Your task to perform on an android device: install app "Facebook Messenger" Image 0: 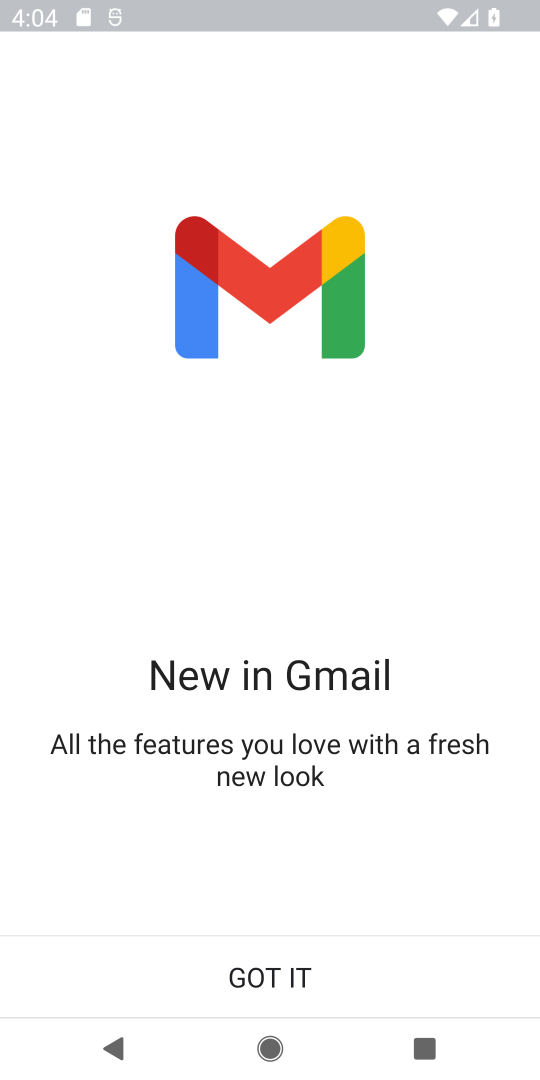
Step 0: press back button
Your task to perform on an android device: install app "Facebook Messenger" Image 1: 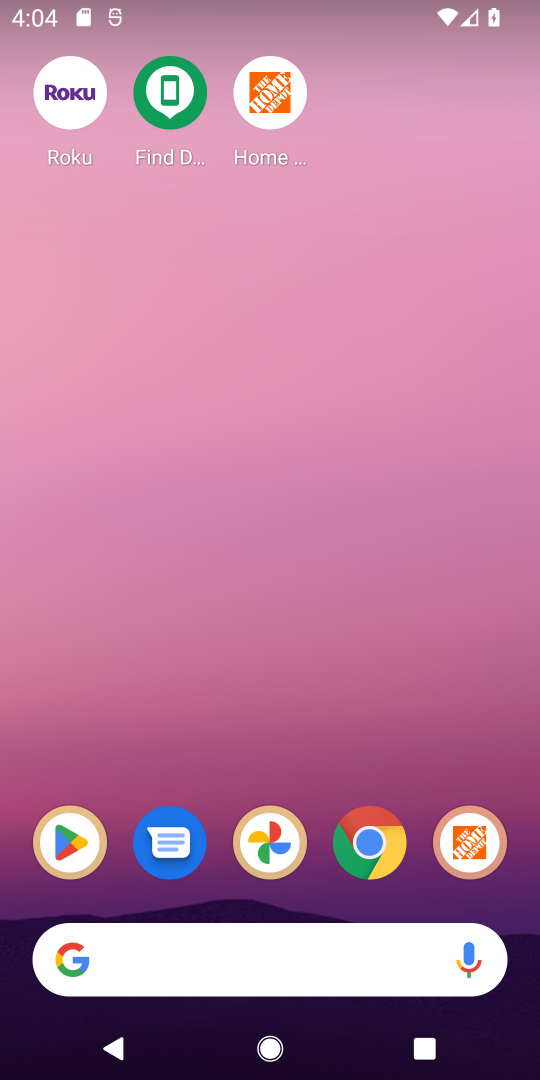
Step 1: drag from (239, 598) to (355, 31)
Your task to perform on an android device: install app "Facebook Messenger" Image 2: 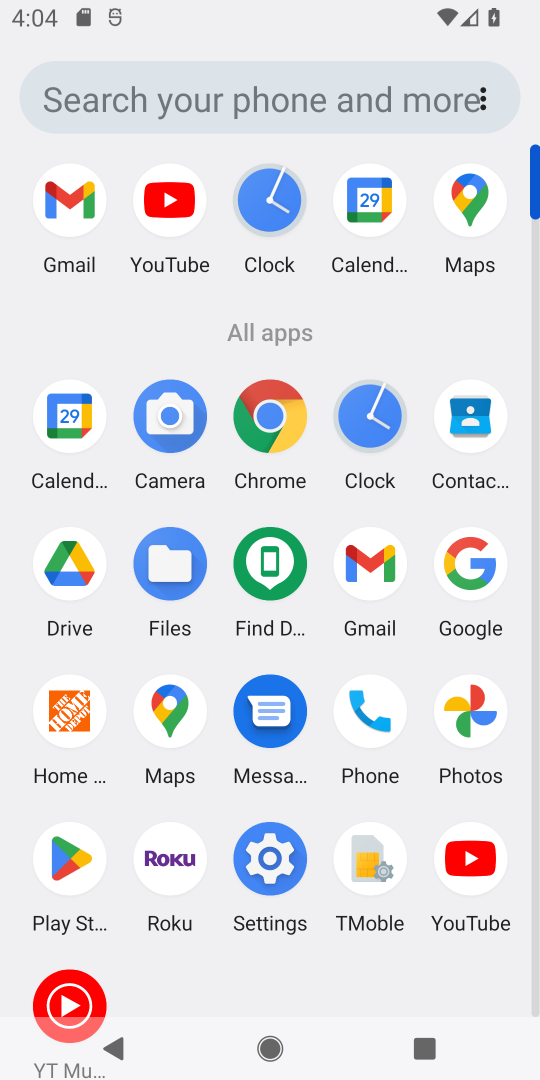
Step 2: click (56, 875)
Your task to perform on an android device: install app "Facebook Messenger" Image 3: 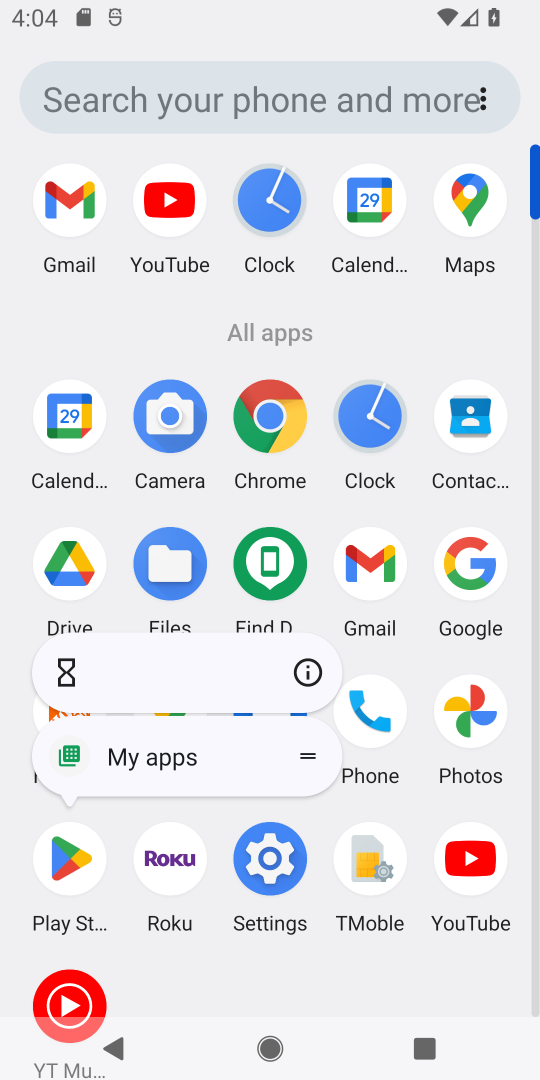
Step 3: click (67, 870)
Your task to perform on an android device: install app "Facebook Messenger" Image 4: 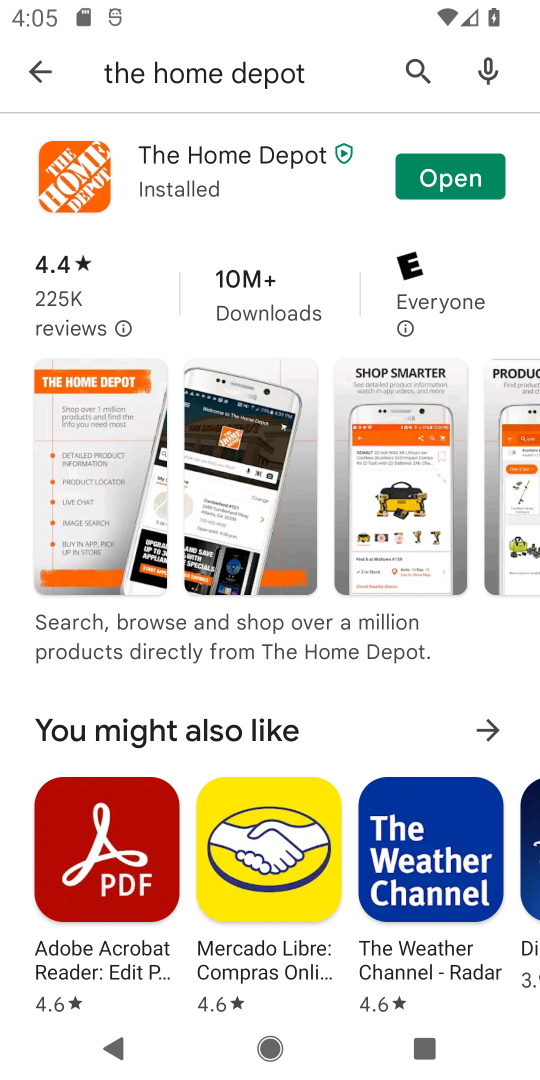
Step 4: click (425, 62)
Your task to perform on an android device: install app "Facebook Messenger" Image 5: 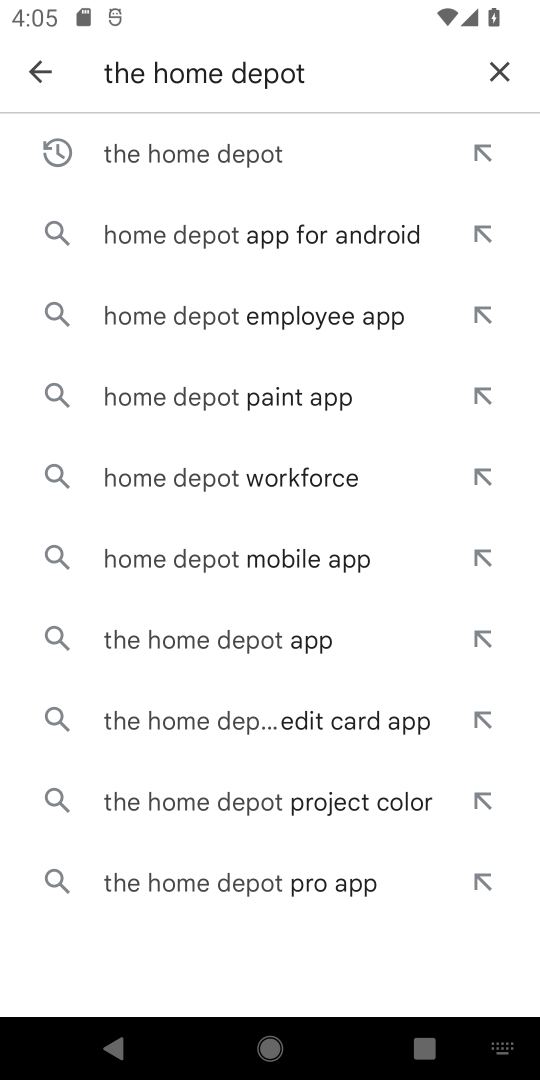
Step 5: click (486, 62)
Your task to perform on an android device: install app "Facebook Messenger" Image 6: 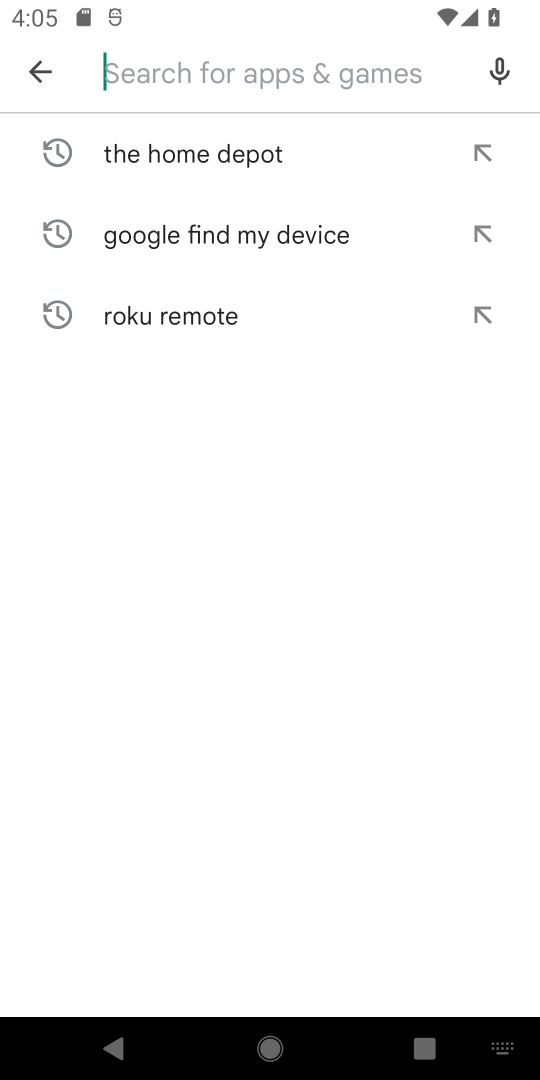
Step 6: click (227, 61)
Your task to perform on an android device: install app "Facebook Messenger" Image 7: 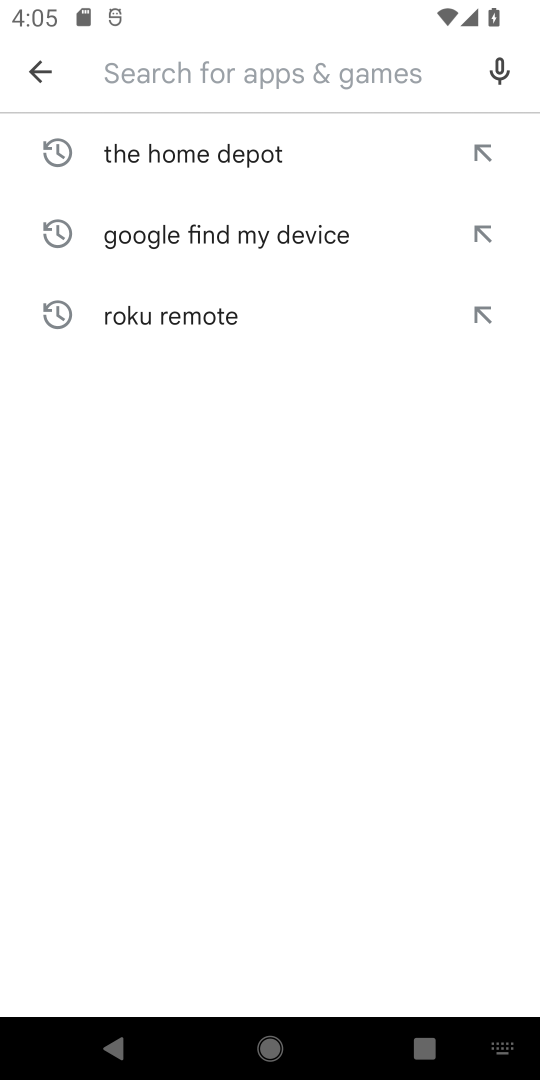
Step 7: type "facebook messenger"
Your task to perform on an android device: install app "Facebook Messenger" Image 8: 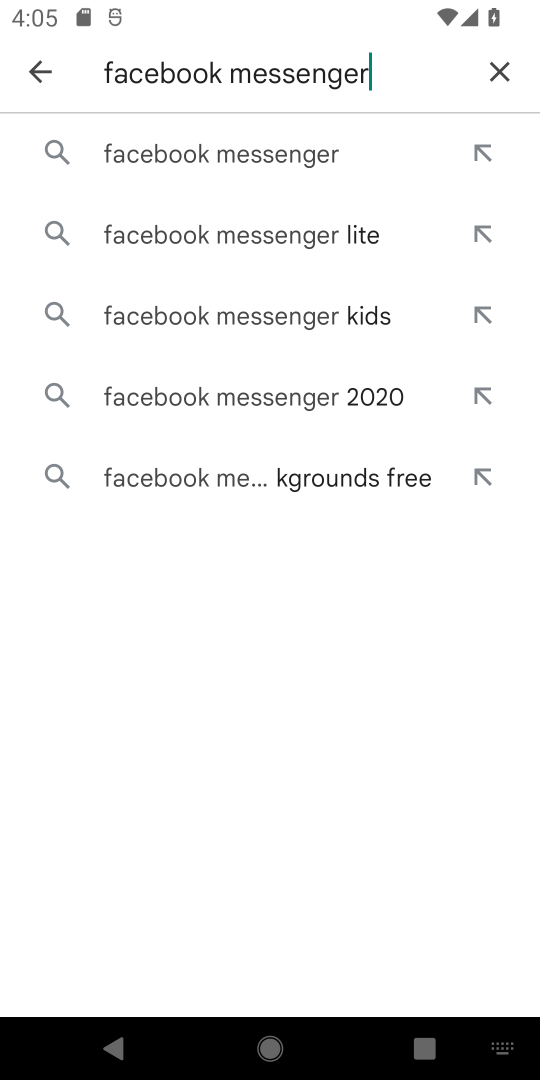
Step 8: click (215, 165)
Your task to perform on an android device: install app "Facebook Messenger" Image 9: 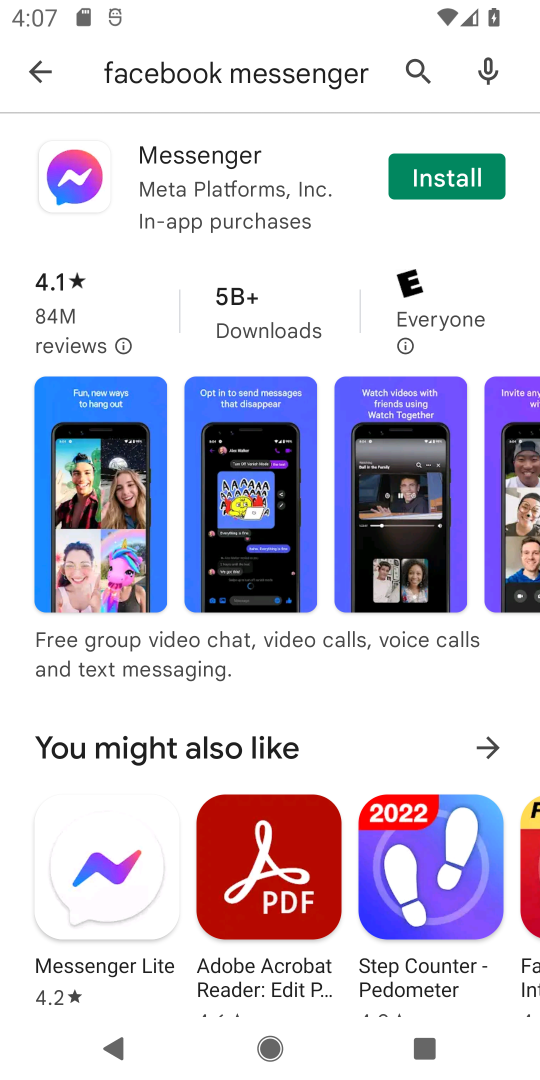
Step 9: click (446, 170)
Your task to perform on an android device: install app "Facebook Messenger" Image 10: 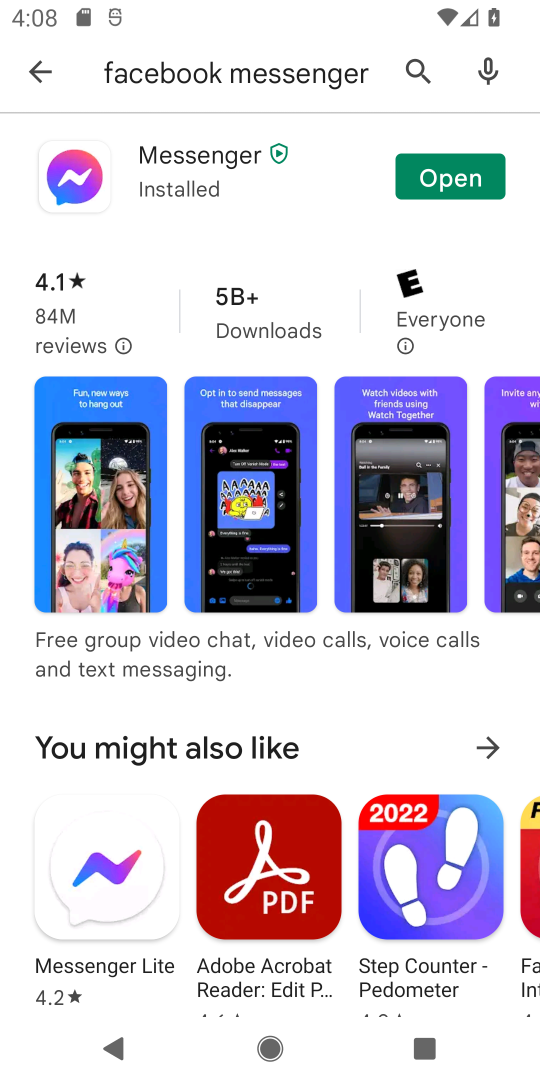
Step 10: click (453, 172)
Your task to perform on an android device: install app "Facebook Messenger" Image 11: 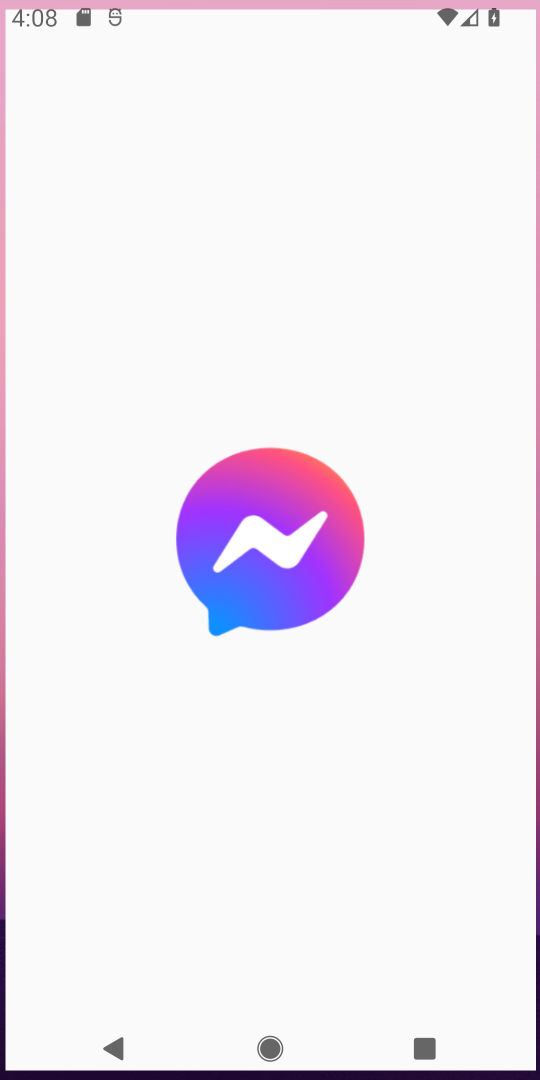
Step 11: task complete